Your task to perform on an android device: toggle improve location accuracy Image 0: 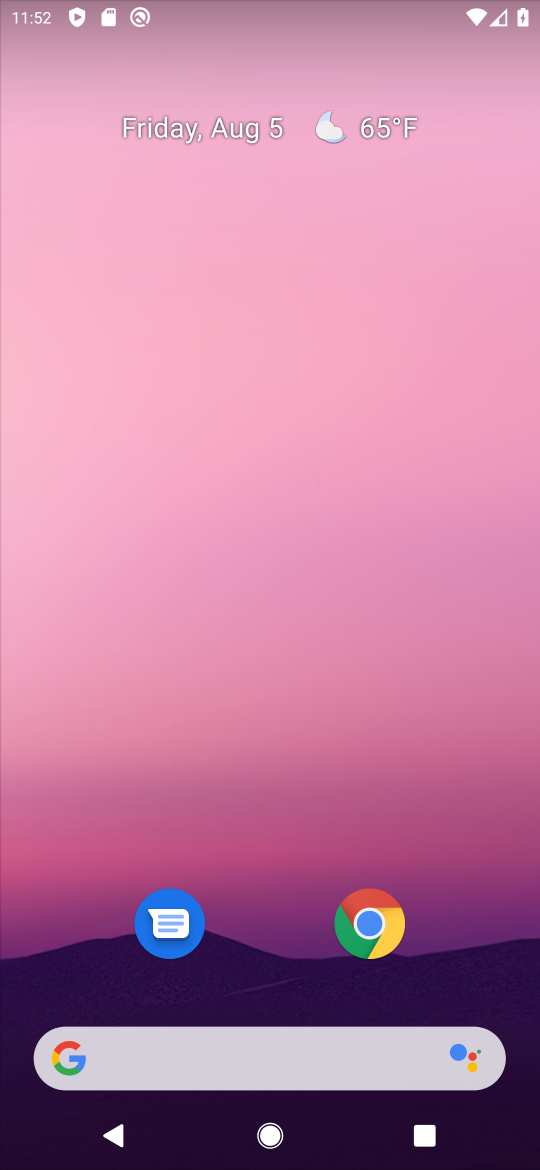
Step 0: drag from (498, 982) to (381, 349)
Your task to perform on an android device: toggle improve location accuracy Image 1: 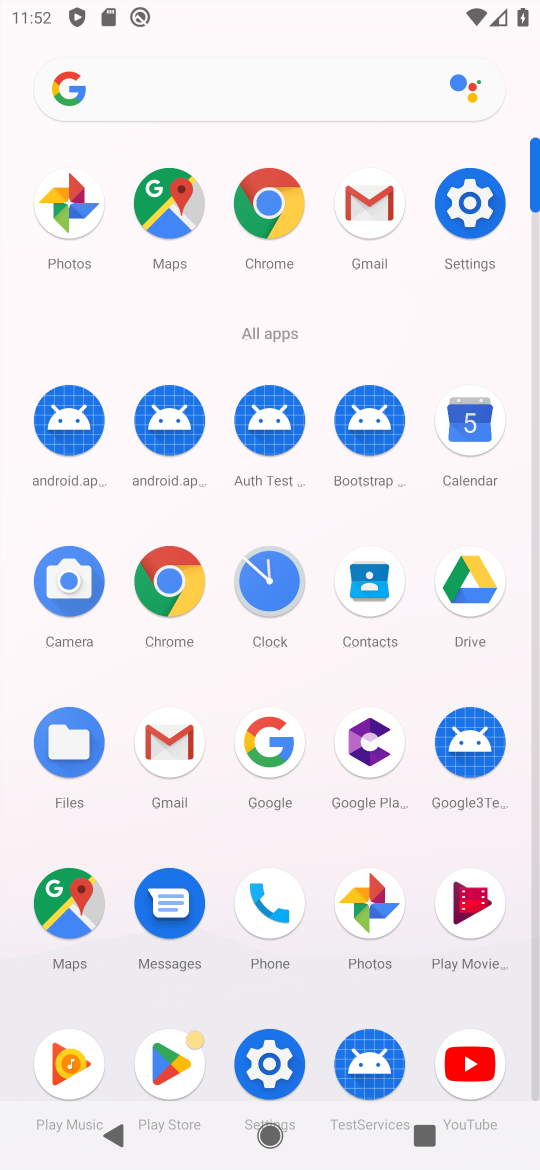
Step 1: click (478, 215)
Your task to perform on an android device: toggle improve location accuracy Image 2: 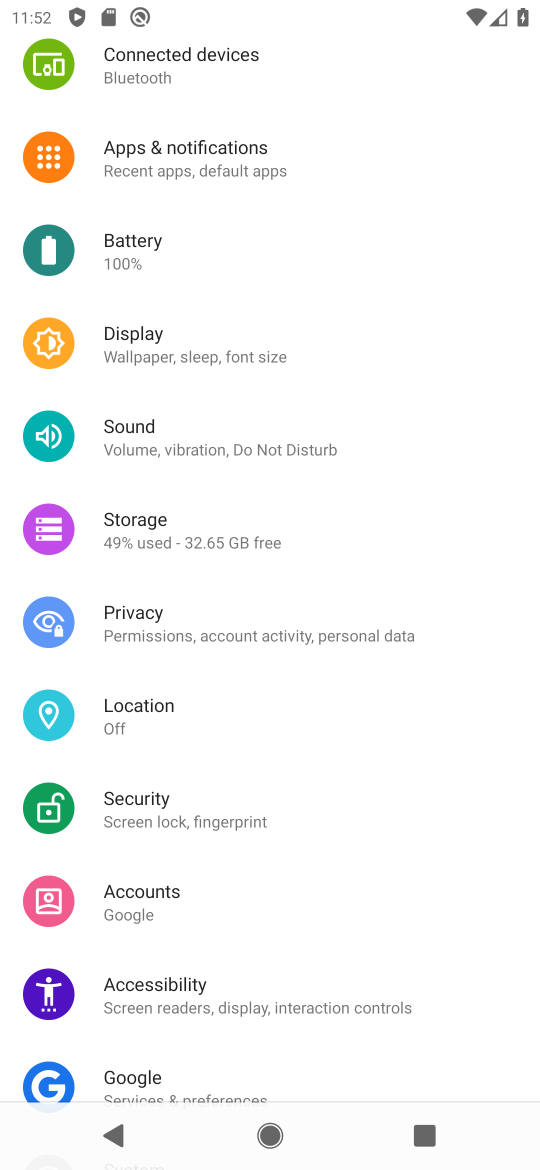
Step 2: click (254, 710)
Your task to perform on an android device: toggle improve location accuracy Image 3: 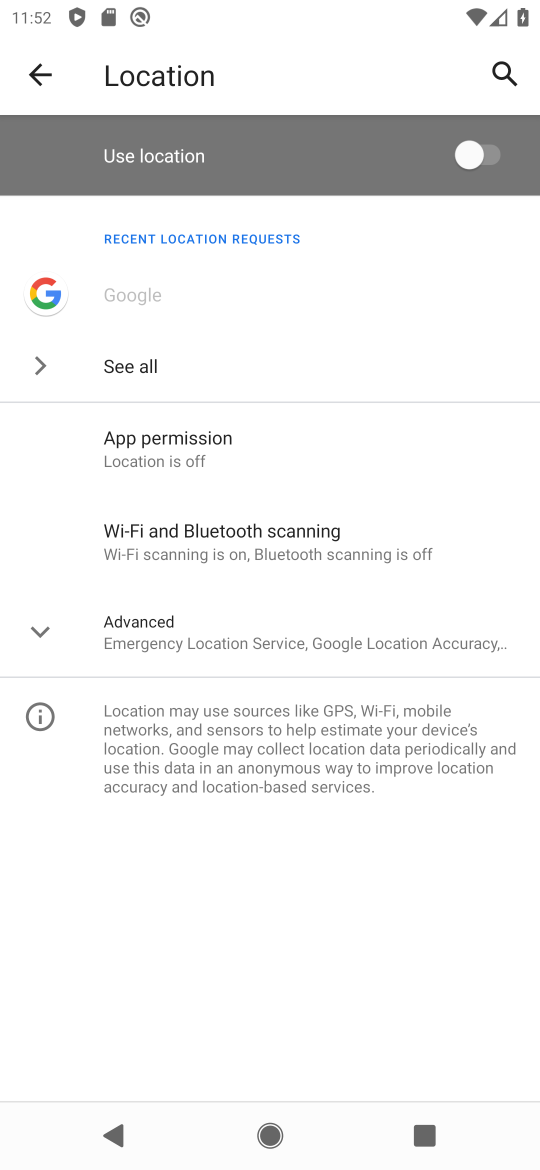
Step 3: click (258, 630)
Your task to perform on an android device: toggle improve location accuracy Image 4: 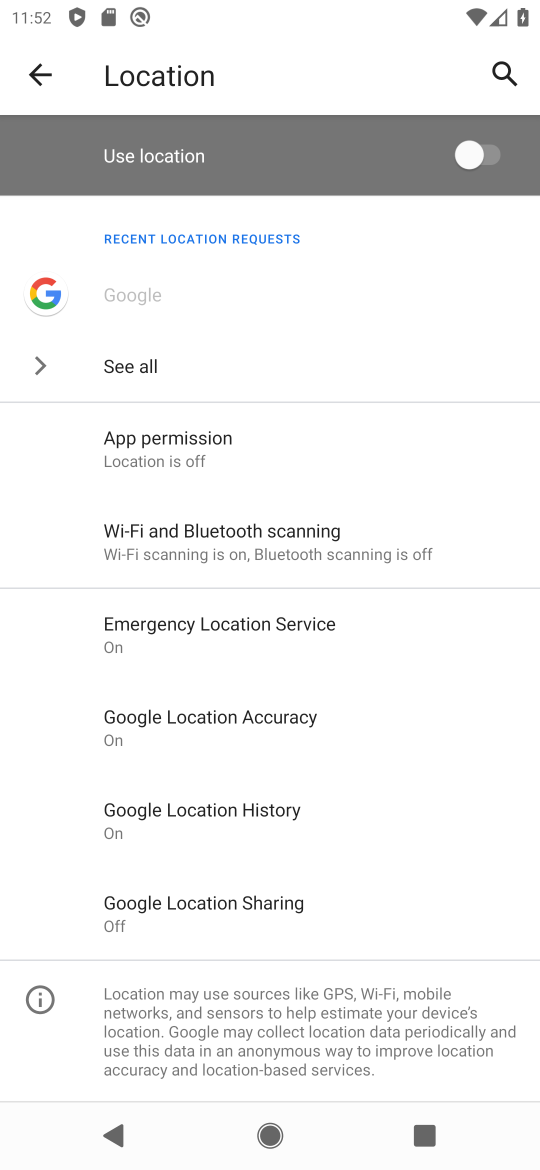
Step 4: click (340, 712)
Your task to perform on an android device: toggle improve location accuracy Image 5: 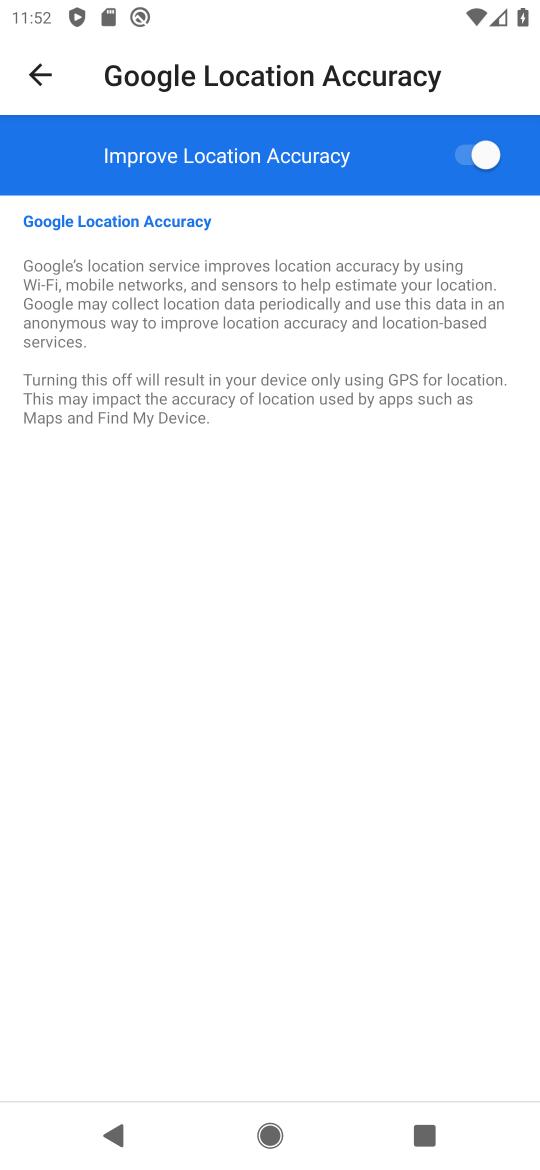
Step 5: click (470, 170)
Your task to perform on an android device: toggle improve location accuracy Image 6: 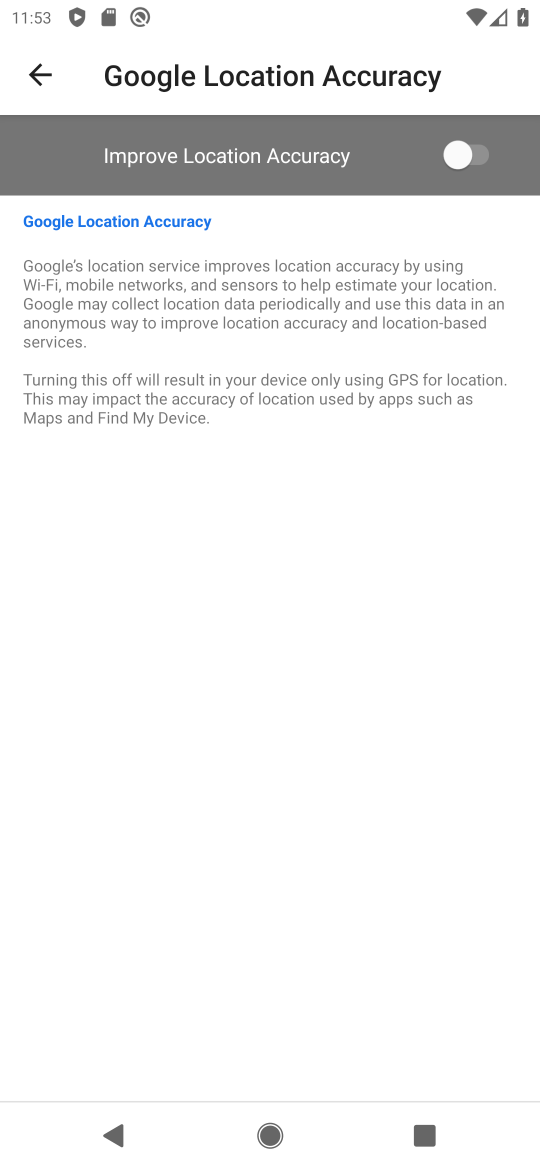
Step 6: task complete